Your task to perform on an android device: Open the calendar app, open the side menu, and click the "Day" option Image 0: 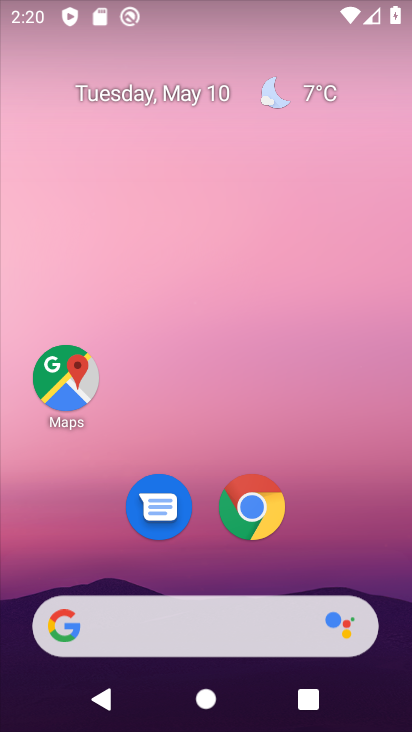
Step 0: drag from (334, 508) to (290, 205)
Your task to perform on an android device: Open the calendar app, open the side menu, and click the "Day" option Image 1: 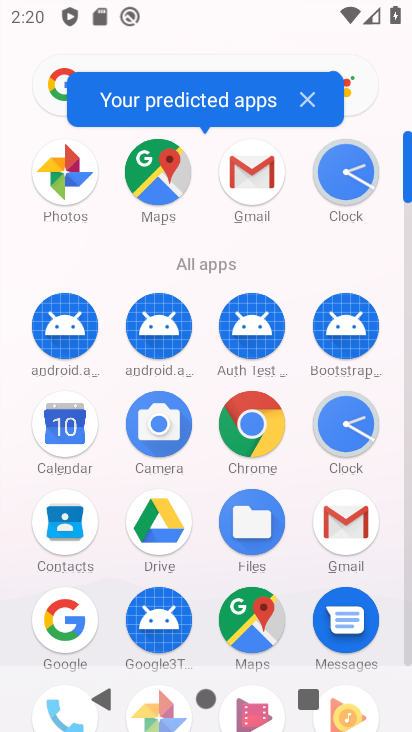
Step 1: click (52, 470)
Your task to perform on an android device: Open the calendar app, open the side menu, and click the "Day" option Image 2: 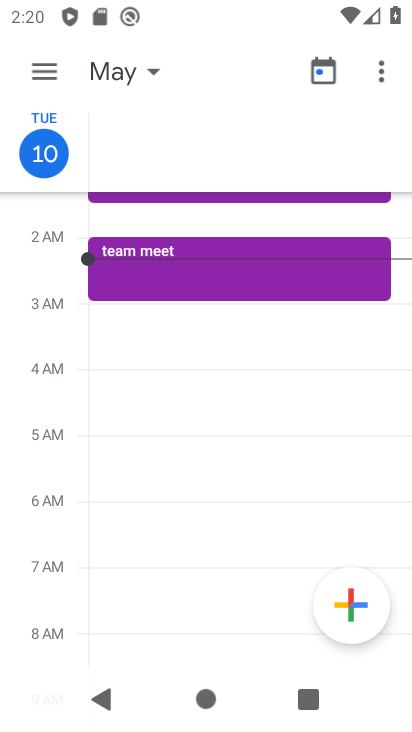
Step 2: click (61, 79)
Your task to perform on an android device: Open the calendar app, open the side menu, and click the "Day" option Image 3: 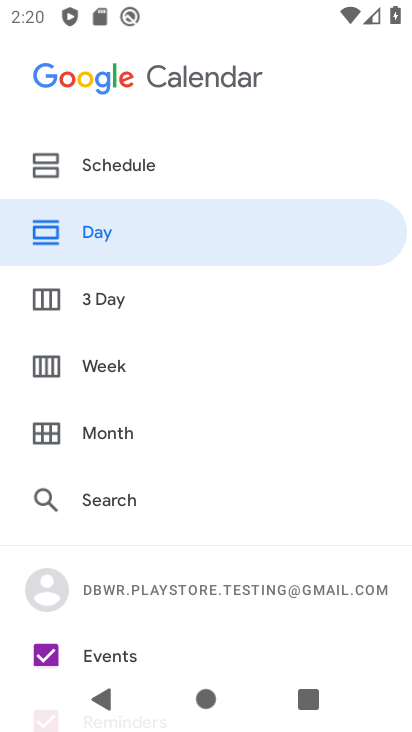
Step 3: click (81, 230)
Your task to perform on an android device: Open the calendar app, open the side menu, and click the "Day" option Image 4: 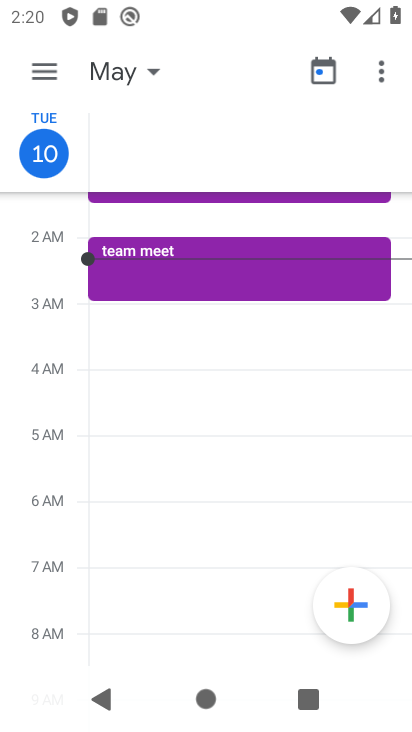
Step 4: task complete